Your task to perform on an android device: open the mobile data screen to see how much data has been used Image 0: 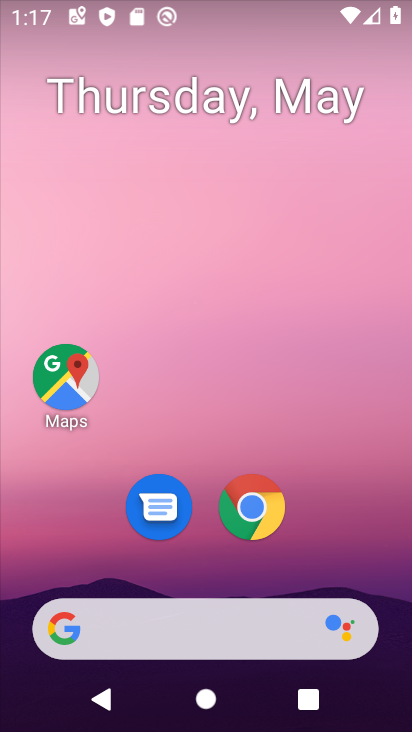
Step 0: click (217, 309)
Your task to perform on an android device: open the mobile data screen to see how much data has been used Image 1: 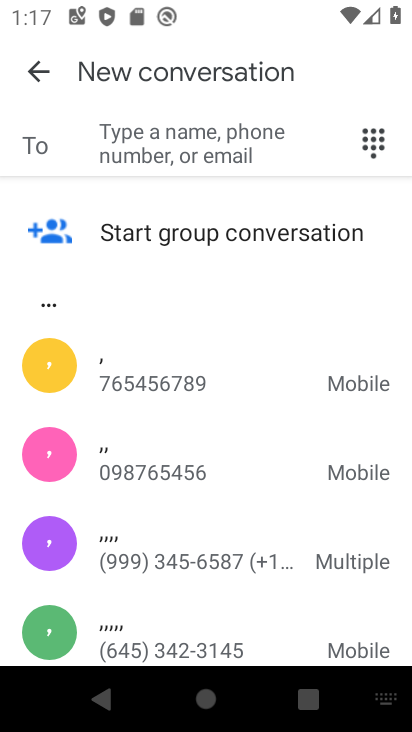
Step 1: click (216, 304)
Your task to perform on an android device: open the mobile data screen to see how much data has been used Image 2: 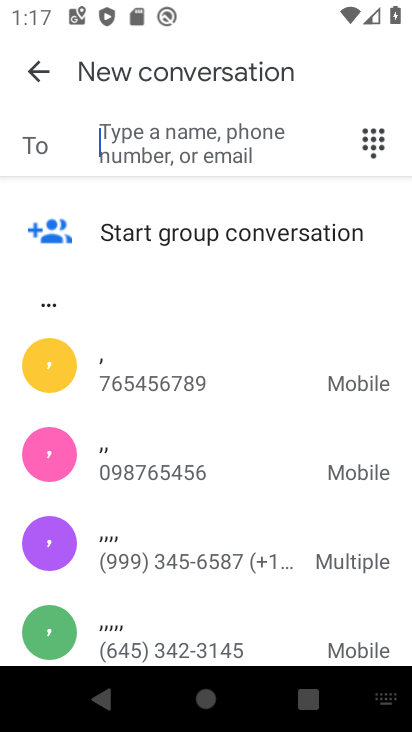
Step 2: press back button
Your task to perform on an android device: open the mobile data screen to see how much data has been used Image 3: 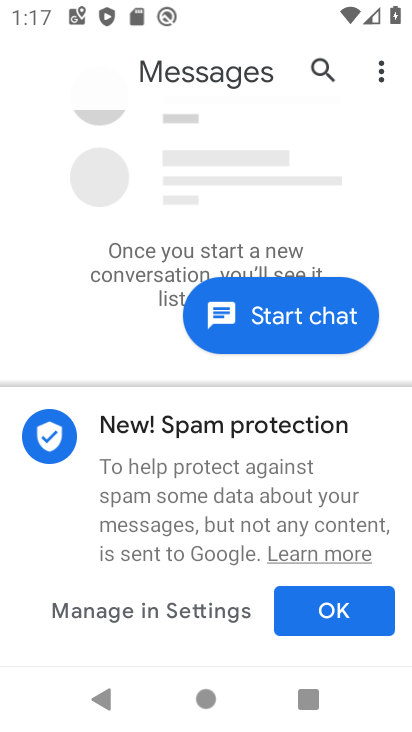
Step 3: press home button
Your task to perform on an android device: open the mobile data screen to see how much data has been used Image 4: 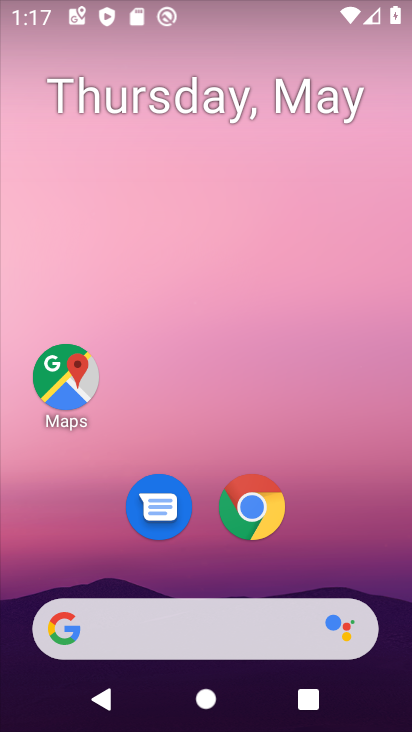
Step 4: drag from (150, 600) to (182, 202)
Your task to perform on an android device: open the mobile data screen to see how much data has been used Image 5: 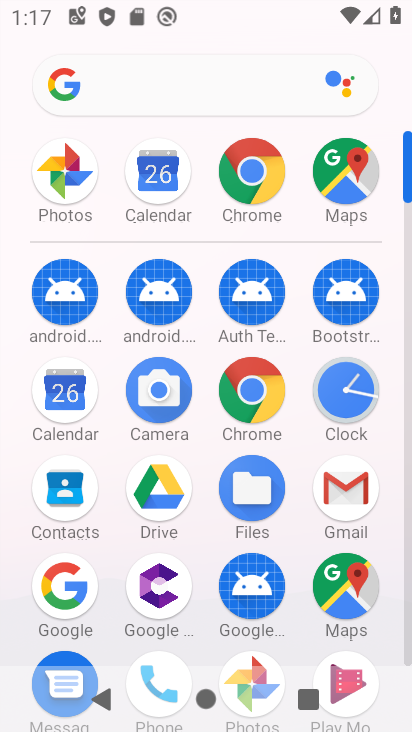
Step 5: drag from (133, 658) to (143, 185)
Your task to perform on an android device: open the mobile data screen to see how much data has been used Image 6: 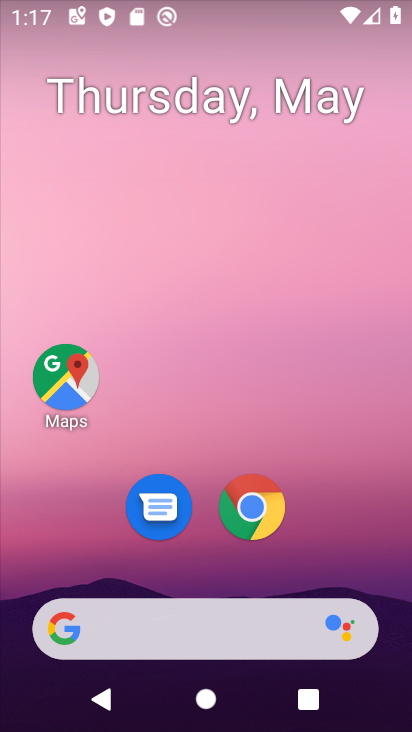
Step 6: drag from (298, 551) to (275, 189)
Your task to perform on an android device: open the mobile data screen to see how much data has been used Image 7: 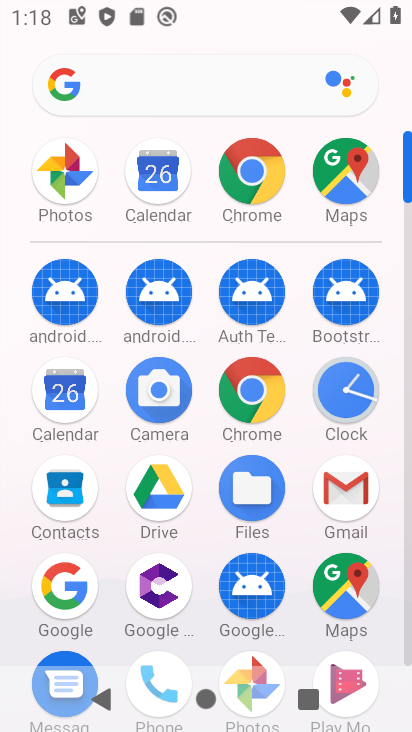
Step 7: drag from (295, 629) to (325, 238)
Your task to perform on an android device: open the mobile data screen to see how much data has been used Image 8: 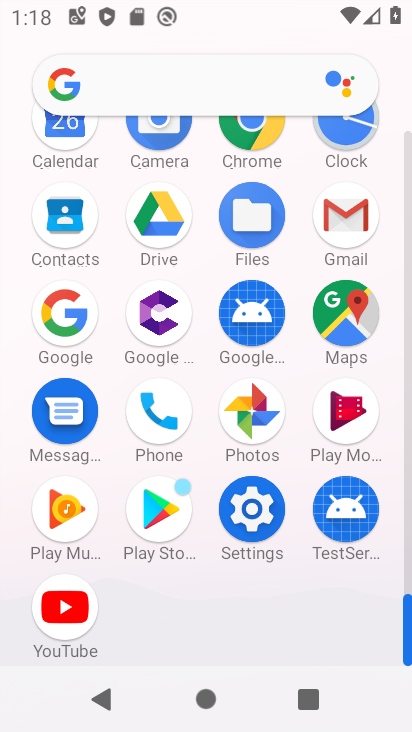
Step 8: click (254, 521)
Your task to perform on an android device: open the mobile data screen to see how much data has been used Image 9: 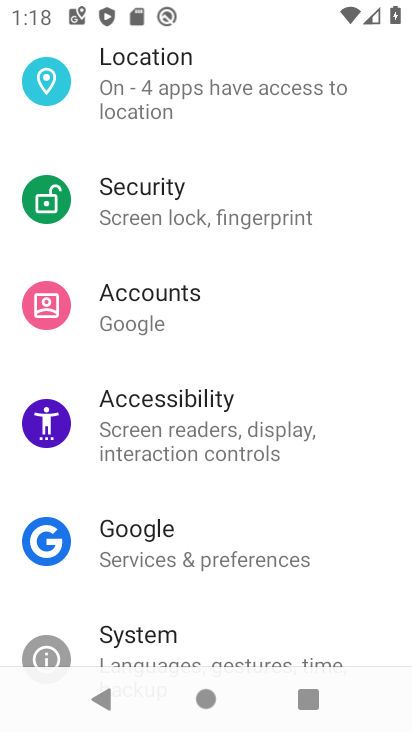
Step 9: drag from (250, 217) to (151, 713)
Your task to perform on an android device: open the mobile data screen to see how much data has been used Image 10: 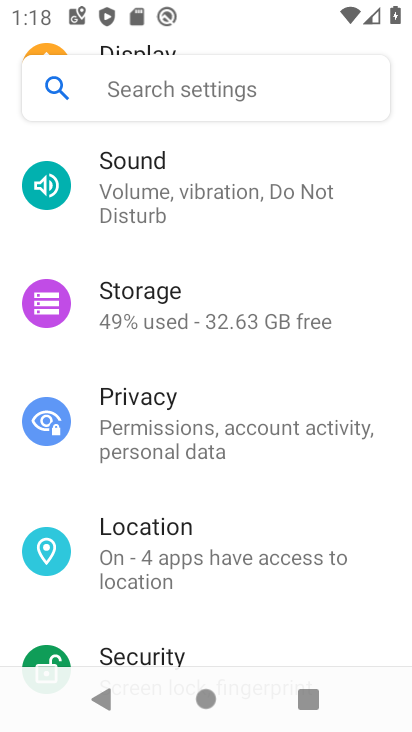
Step 10: drag from (275, 205) to (187, 726)
Your task to perform on an android device: open the mobile data screen to see how much data has been used Image 11: 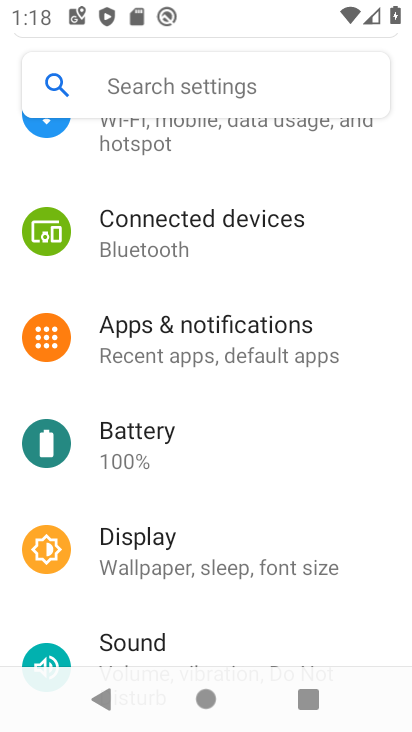
Step 11: drag from (195, 202) to (183, 546)
Your task to perform on an android device: open the mobile data screen to see how much data has been used Image 12: 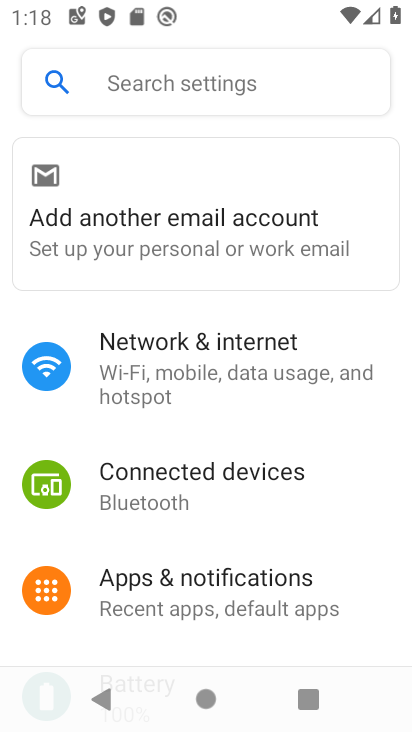
Step 12: click (216, 369)
Your task to perform on an android device: open the mobile data screen to see how much data has been used Image 13: 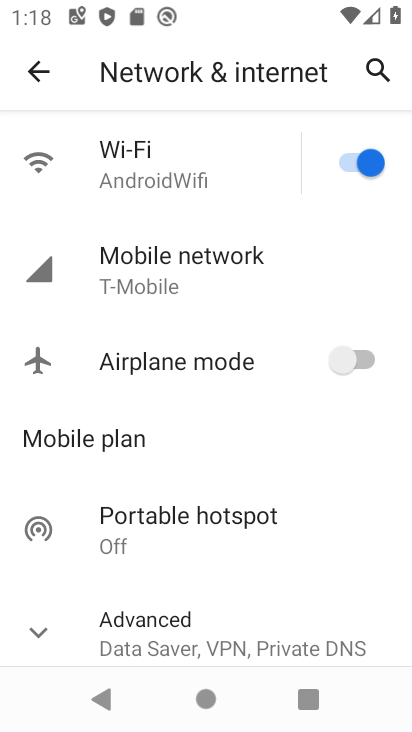
Step 13: drag from (221, 515) to (229, 285)
Your task to perform on an android device: open the mobile data screen to see how much data has been used Image 14: 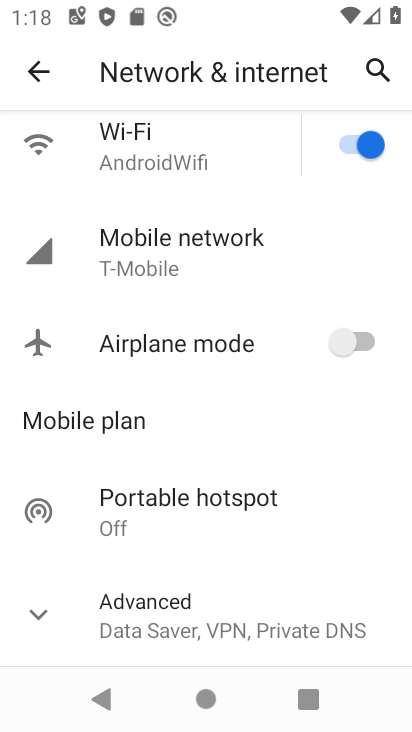
Step 14: click (196, 252)
Your task to perform on an android device: open the mobile data screen to see how much data has been used Image 15: 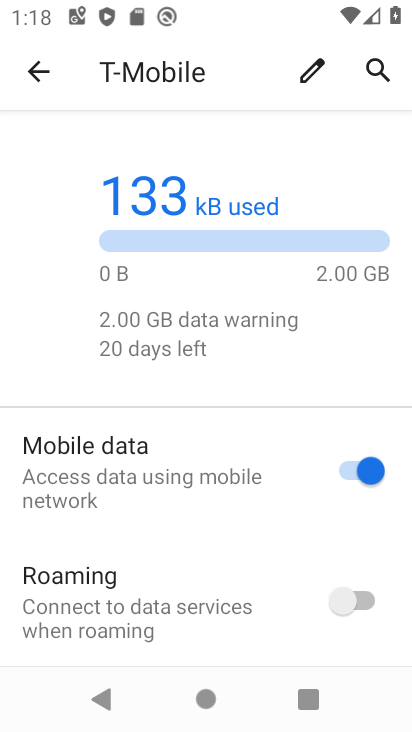
Step 15: task complete